Your task to perform on an android device: show emergency info Image 0: 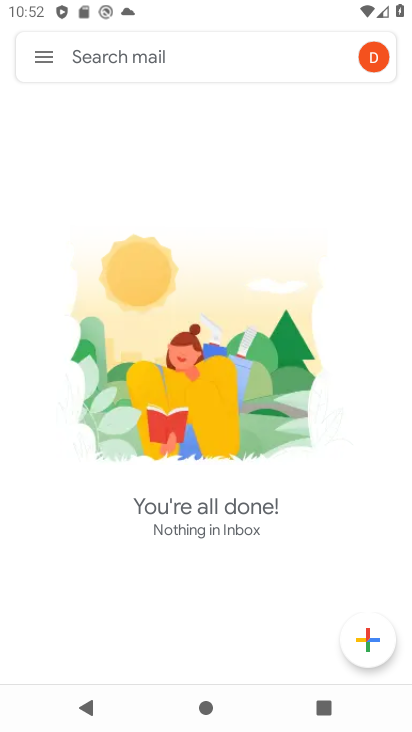
Step 0: press home button
Your task to perform on an android device: show emergency info Image 1: 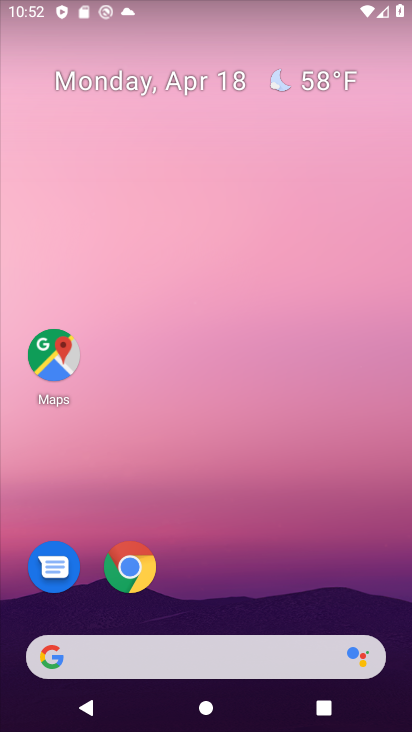
Step 1: drag from (396, 621) to (353, 146)
Your task to perform on an android device: show emergency info Image 2: 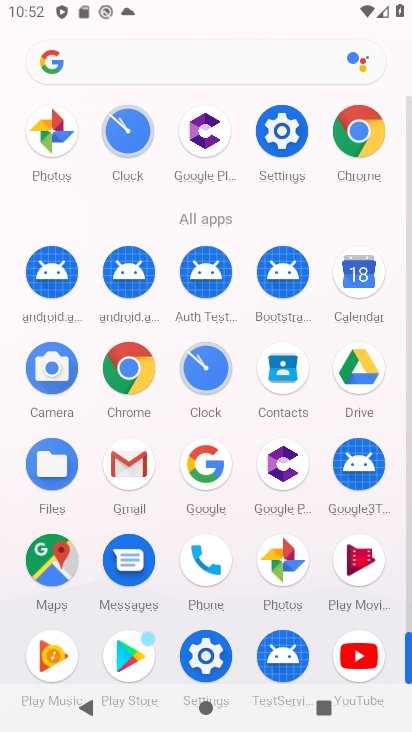
Step 2: click (206, 660)
Your task to perform on an android device: show emergency info Image 3: 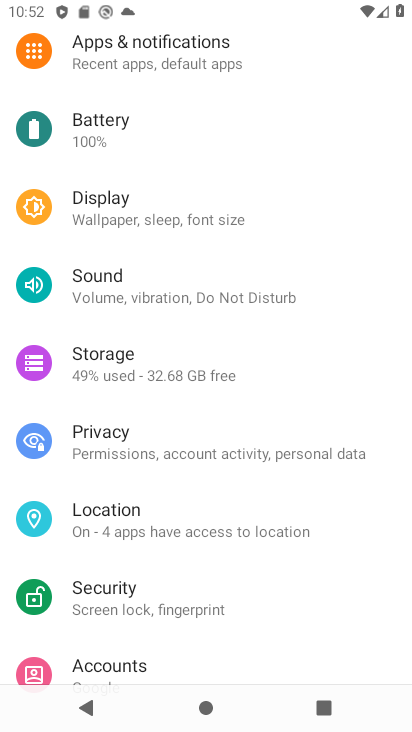
Step 3: drag from (323, 579) to (351, 242)
Your task to perform on an android device: show emergency info Image 4: 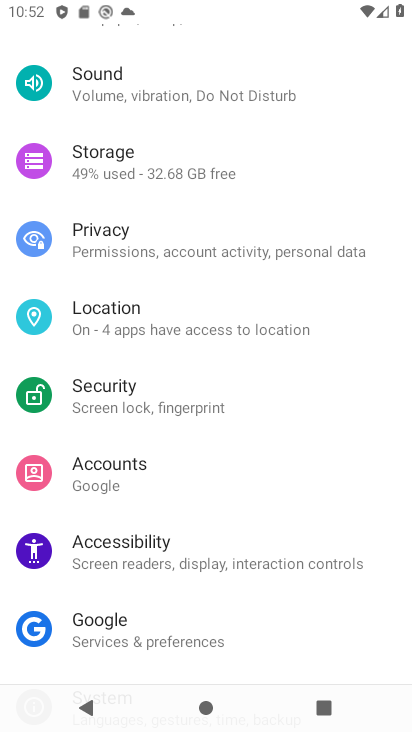
Step 4: drag from (317, 594) to (360, 243)
Your task to perform on an android device: show emergency info Image 5: 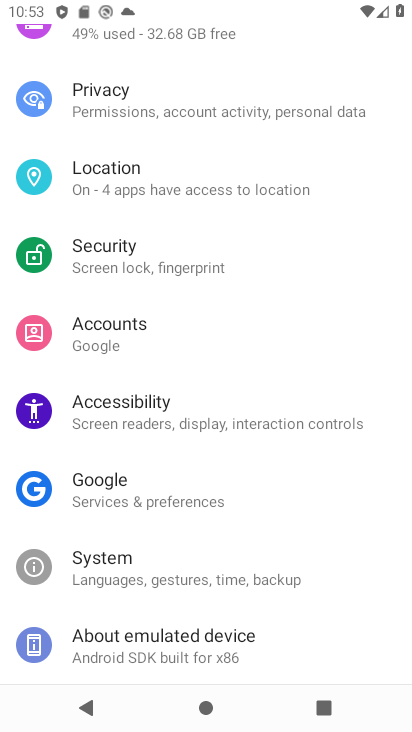
Step 5: click (115, 638)
Your task to perform on an android device: show emergency info Image 6: 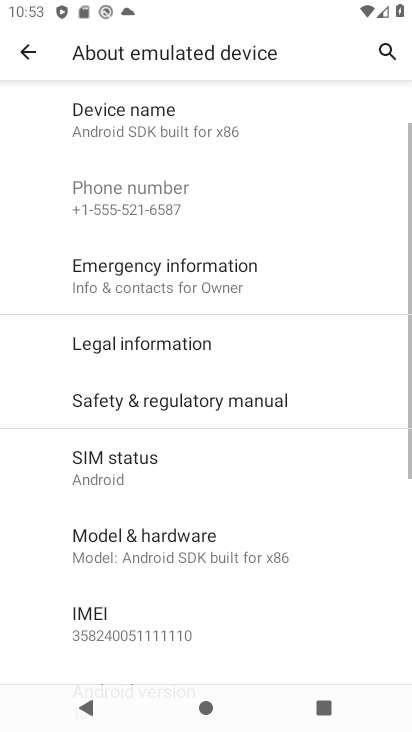
Step 6: drag from (287, 605) to (297, 364)
Your task to perform on an android device: show emergency info Image 7: 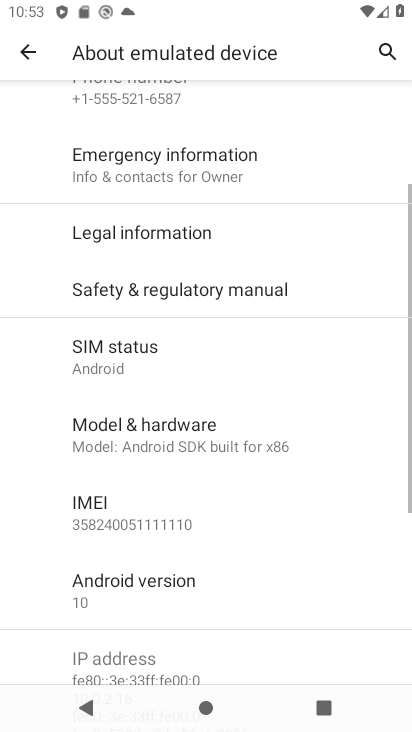
Step 7: click (156, 154)
Your task to perform on an android device: show emergency info Image 8: 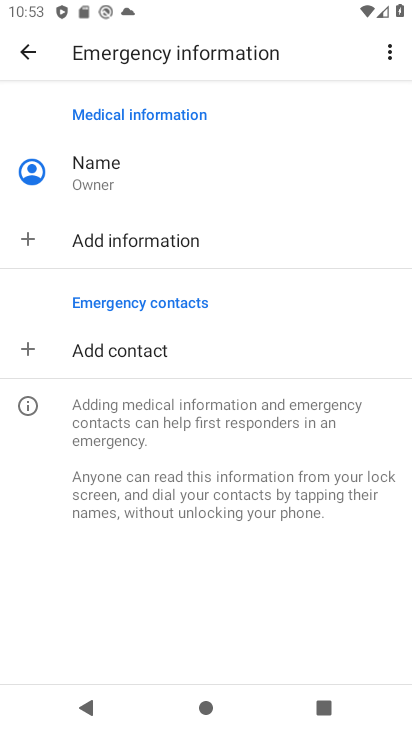
Step 8: task complete